Your task to perform on an android device: remove spam from my inbox in the gmail app Image 0: 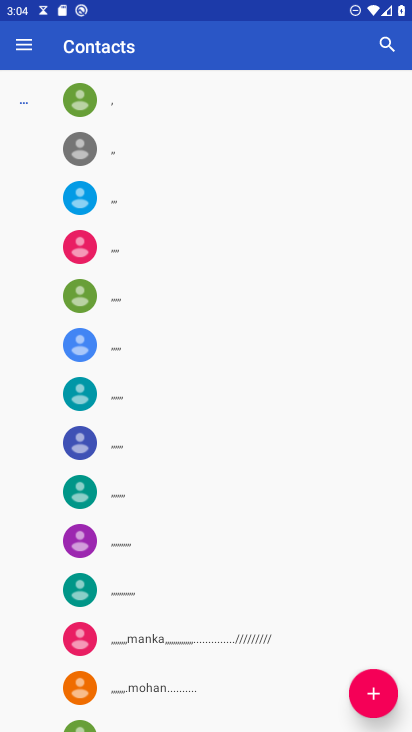
Step 0: press home button
Your task to perform on an android device: remove spam from my inbox in the gmail app Image 1: 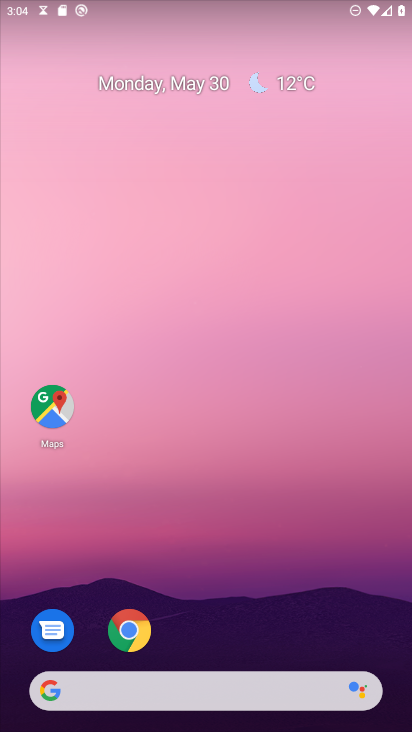
Step 1: drag from (172, 676) to (206, 12)
Your task to perform on an android device: remove spam from my inbox in the gmail app Image 2: 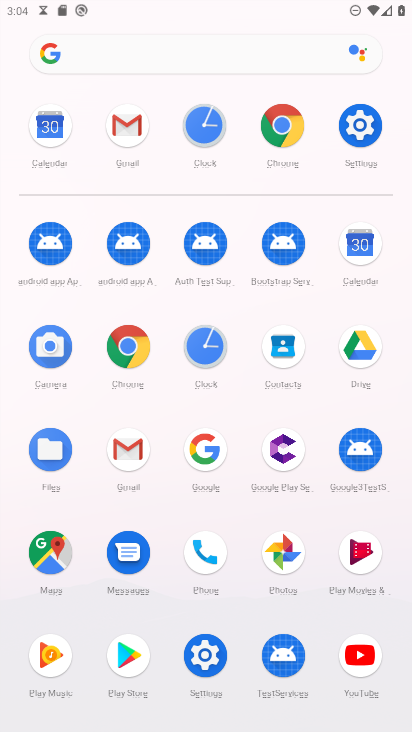
Step 2: click (206, 12)
Your task to perform on an android device: remove spam from my inbox in the gmail app Image 3: 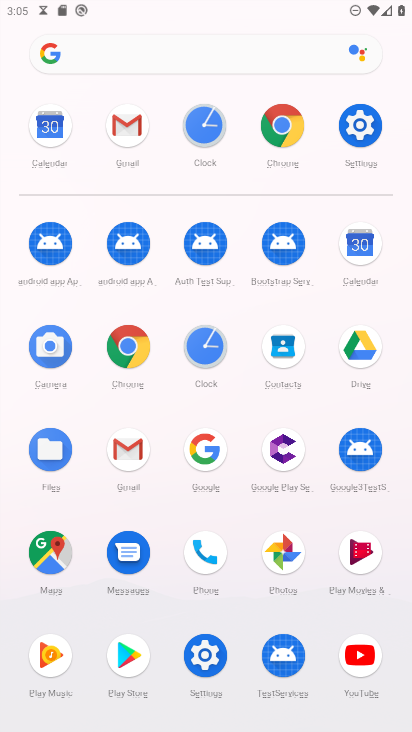
Step 3: click (129, 460)
Your task to perform on an android device: remove spam from my inbox in the gmail app Image 4: 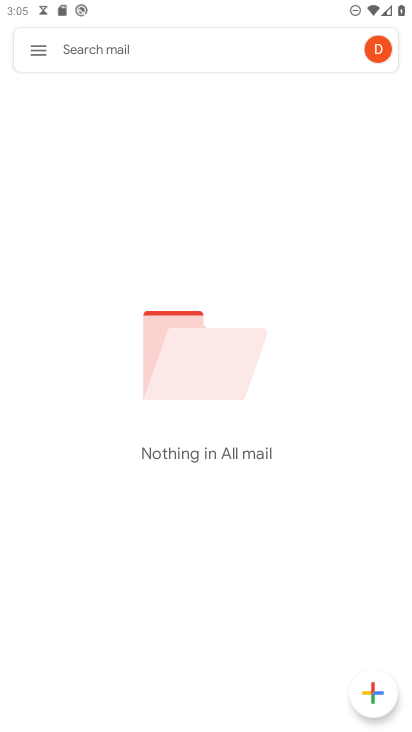
Step 4: click (31, 50)
Your task to perform on an android device: remove spam from my inbox in the gmail app Image 5: 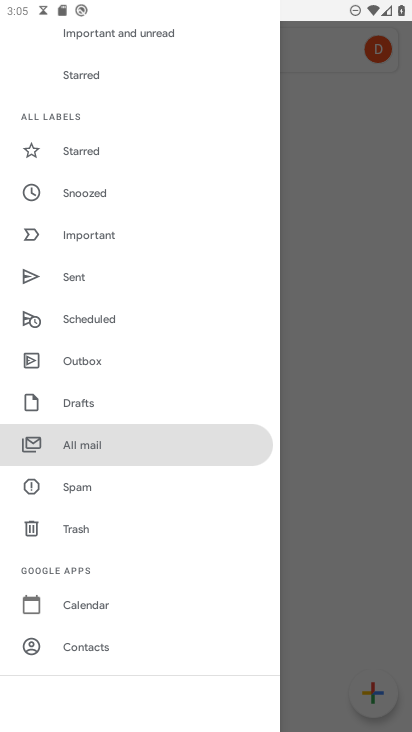
Step 5: click (101, 487)
Your task to perform on an android device: remove spam from my inbox in the gmail app Image 6: 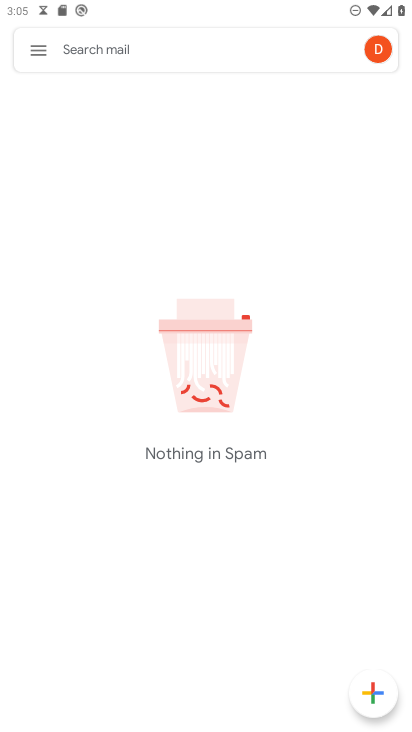
Step 6: task complete